Your task to perform on an android device: turn on bluetooth scan Image 0: 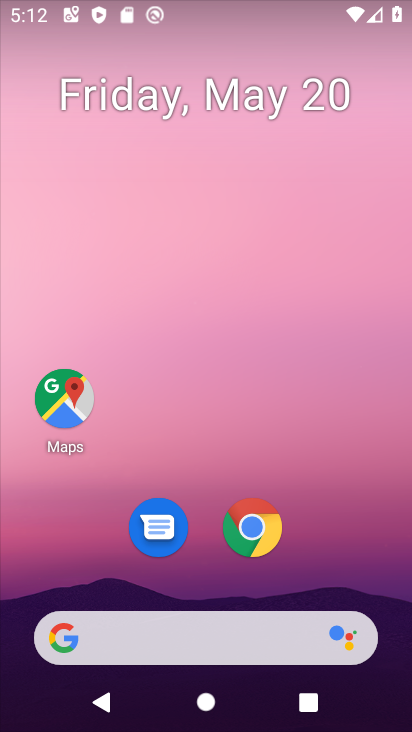
Step 0: drag from (331, 652) to (254, 79)
Your task to perform on an android device: turn on bluetooth scan Image 1: 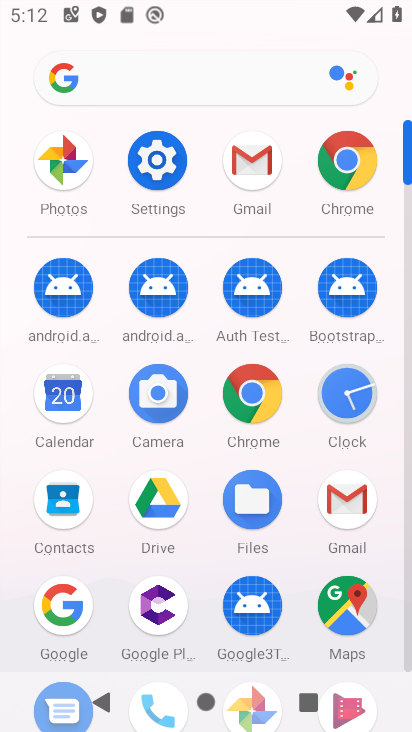
Step 1: click (147, 164)
Your task to perform on an android device: turn on bluetooth scan Image 2: 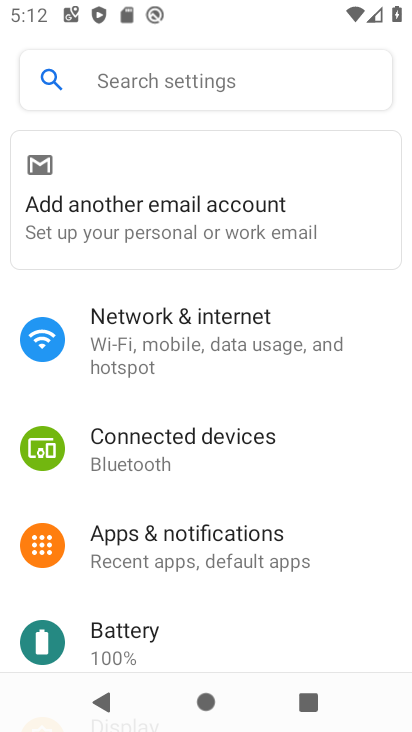
Step 2: drag from (214, 605) to (225, 0)
Your task to perform on an android device: turn on bluetooth scan Image 3: 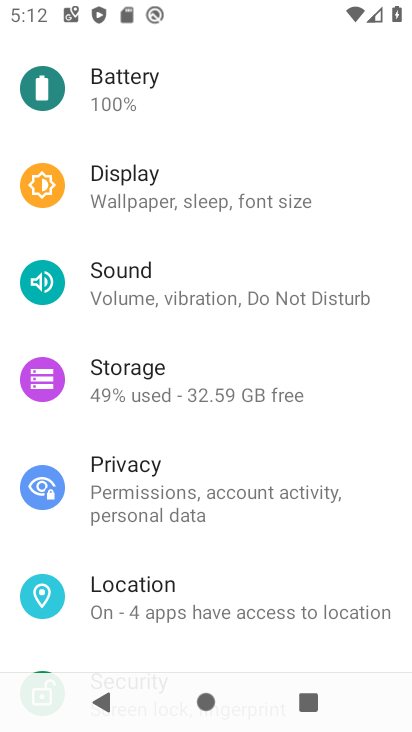
Step 3: click (164, 603)
Your task to perform on an android device: turn on bluetooth scan Image 4: 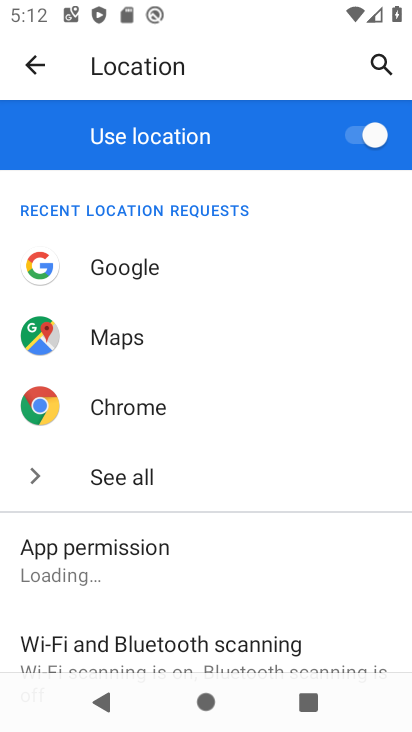
Step 4: drag from (237, 607) to (276, 87)
Your task to perform on an android device: turn on bluetooth scan Image 5: 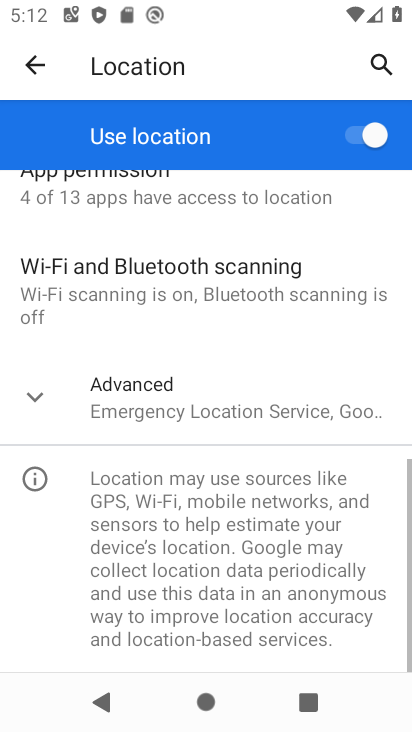
Step 5: click (234, 282)
Your task to perform on an android device: turn on bluetooth scan Image 6: 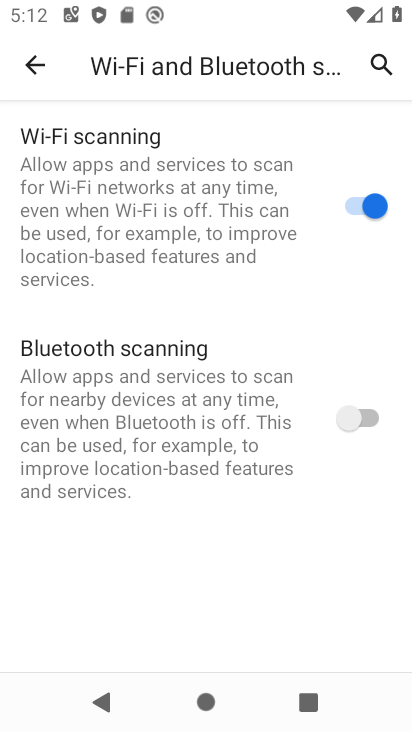
Step 6: click (363, 417)
Your task to perform on an android device: turn on bluetooth scan Image 7: 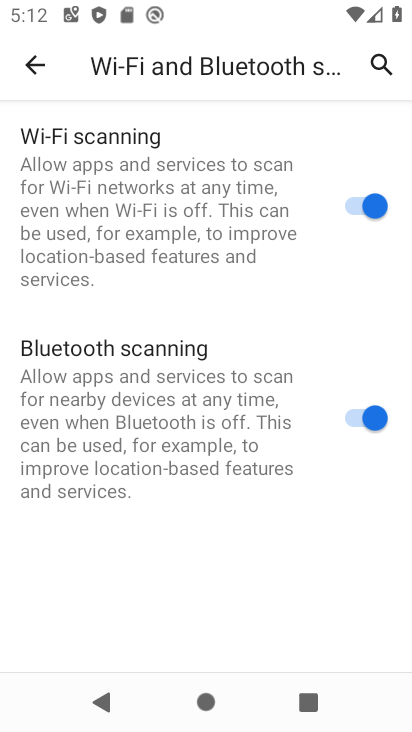
Step 7: task complete